Your task to perform on an android device: Search for pizza restaurants on Maps Image 0: 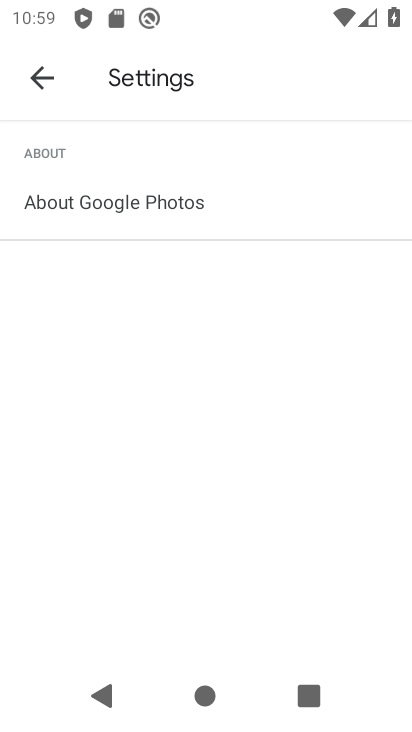
Step 0: press home button
Your task to perform on an android device: Search for pizza restaurants on Maps Image 1: 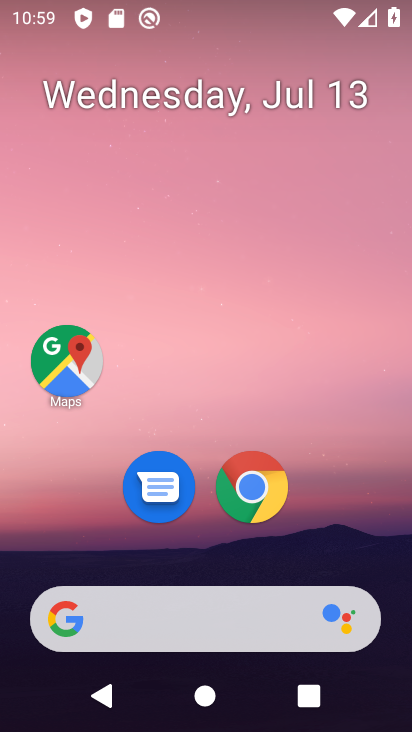
Step 1: drag from (202, 556) to (138, 44)
Your task to perform on an android device: Search for pizza restaurants on Maps Image 2: 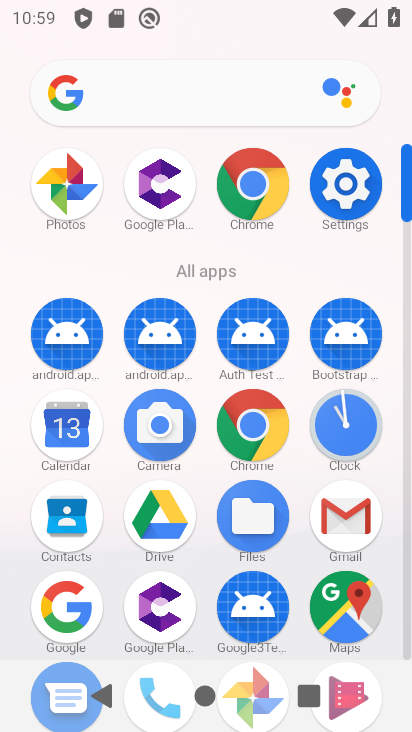
Step 2: click (357, 596)
Your task to perform on an android device: Search for pizza restaurants on Maps Image 3: 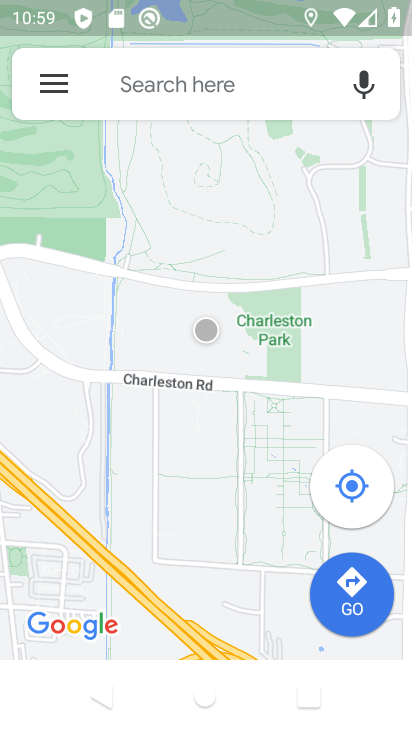
Step 3: click (181, 98)
Your task to perform on an android device: Search for pizza restaurants on Maps Image 4: 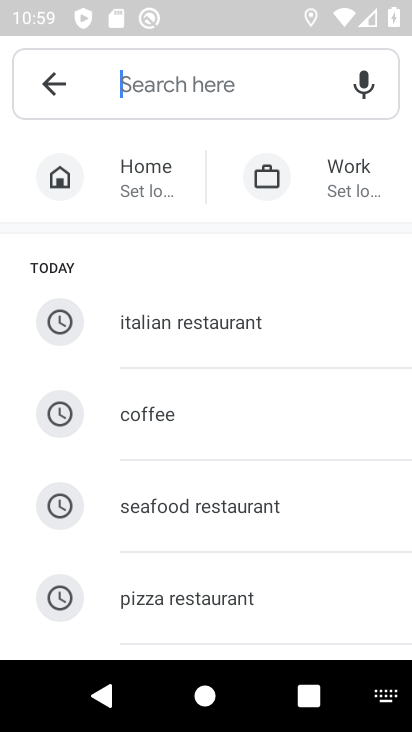
Step 4: click (155, 588)
Your task to perform on an android device: Search for pizza restaurants on Maps Image 5: 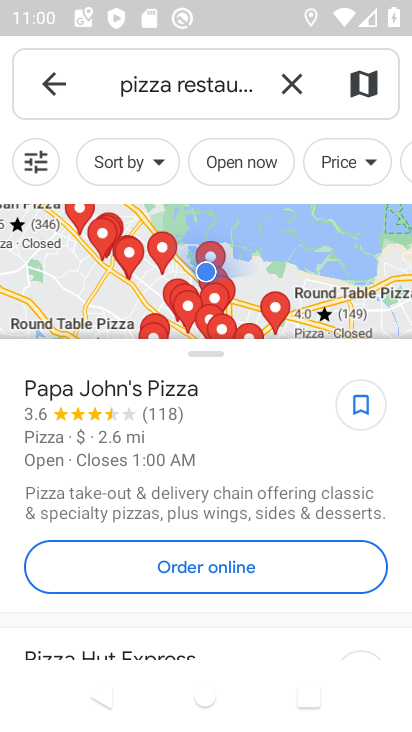
Step 5: task complete